Your task to perform on an android device: Open Amazon Image 0: 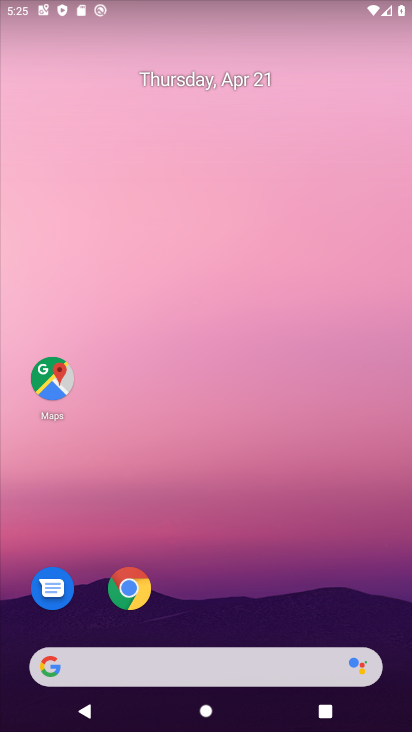
Step 0: click (120, 588)
Your task to perform on an android device: Open Amazon Image 1: 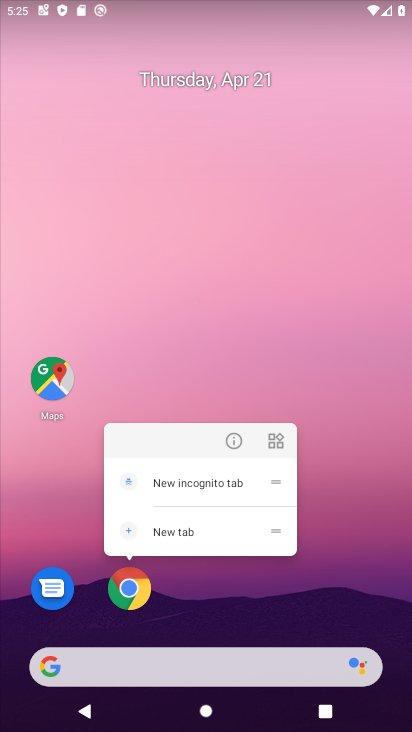
Step 1: click (122, 607)
Your task to perform on an android device: Open Amazon Image 2: 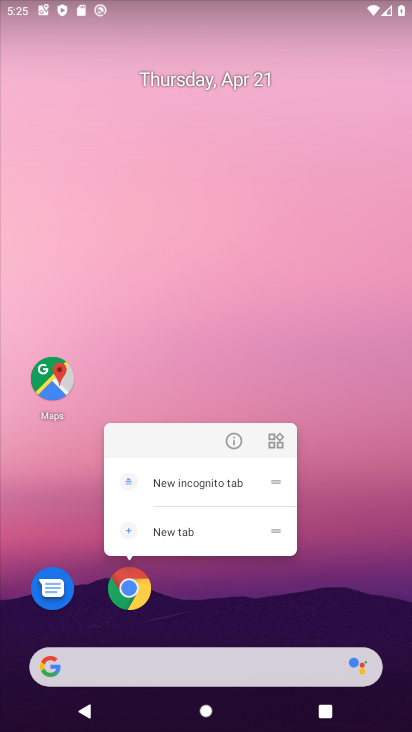
Step 2: click (148, 597)
Your task to perform on an android device: Open Amazon Image 3: 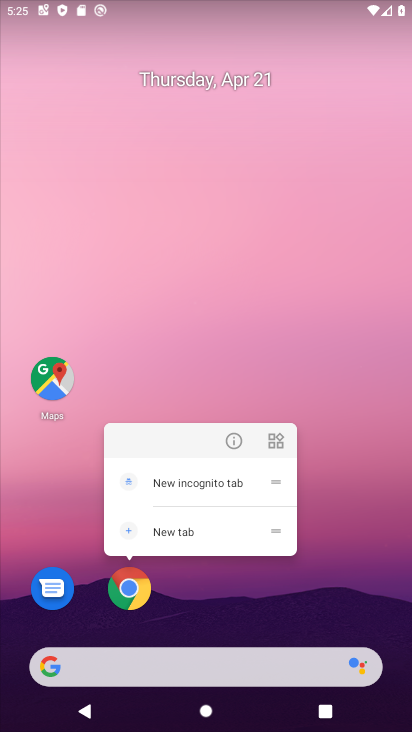
Step 3: click (127, 607)
Your task to perform on an android device: Open Amazon Image 4: 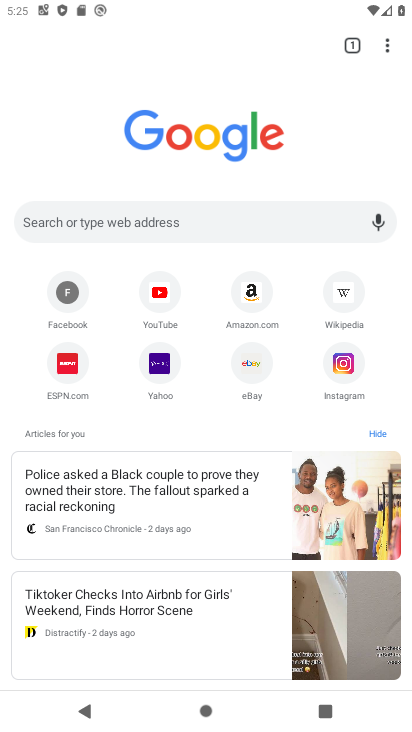
Step 4: click (252, 312)
Your task to perform on an android device: Open Amazon Image 5: 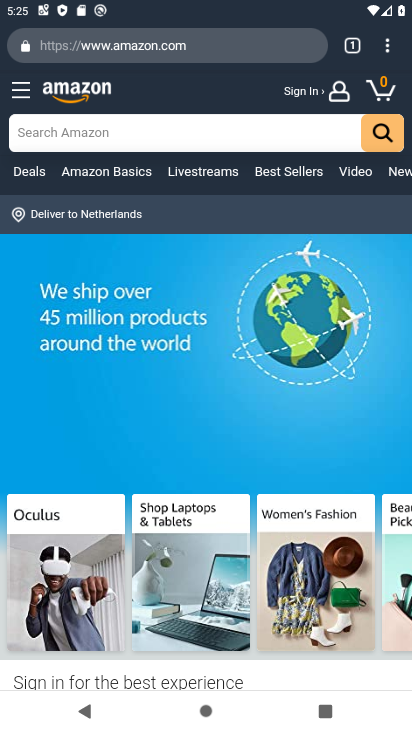
Step 5: task complete